Your task to perform on an android device: Clear the cart on ebay.com. Image 0: 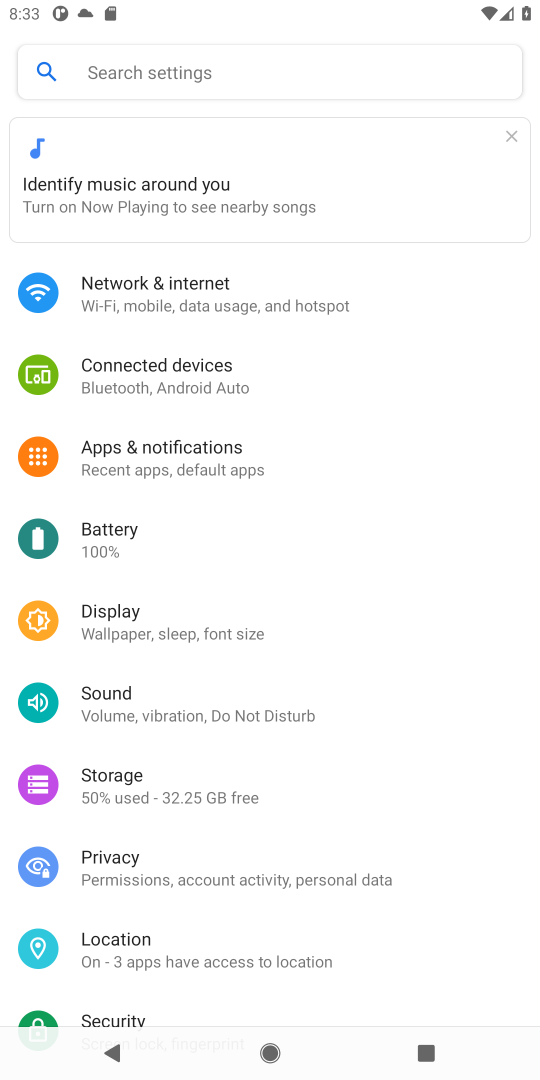
Step 0: press home button
Your task to perform on an android device: Clear the cart on ebay.com. Image 1: 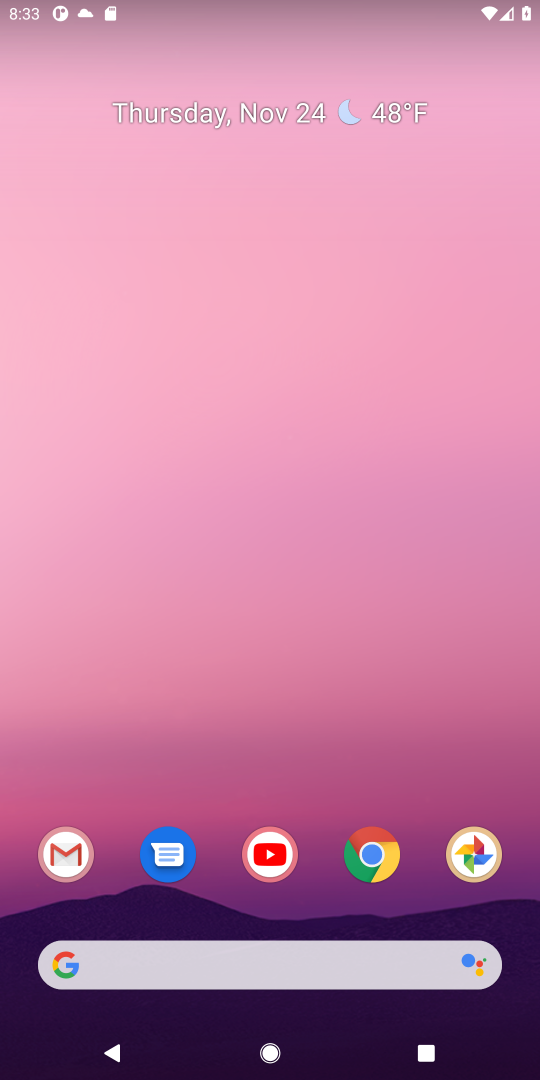
Step 1: click (362, 867)
Your task to perform on an android device: Clear the cart on ebay.com. Image 2: 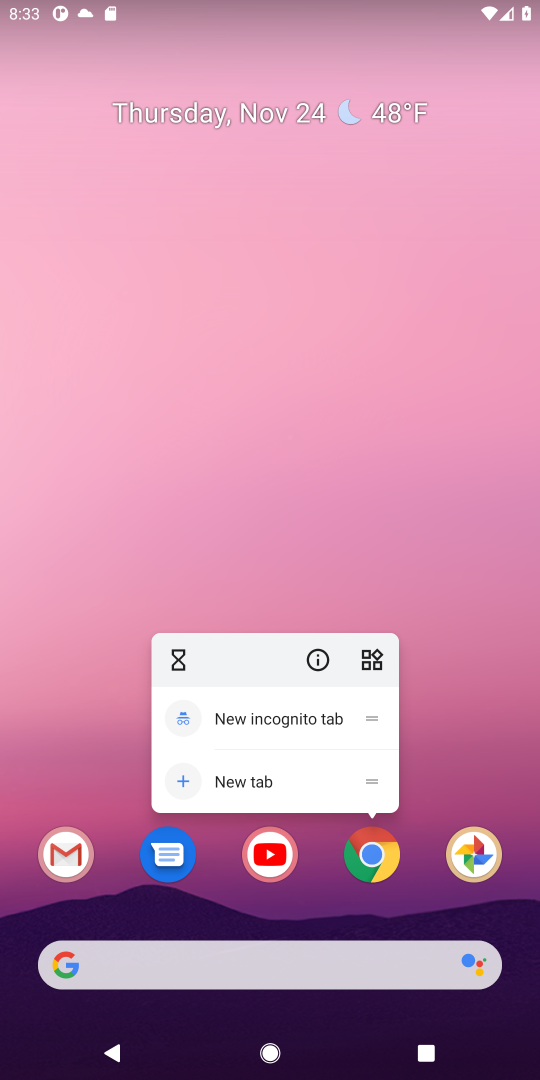
Step 2: click (365, 864)
Your task to perform on an android device: Clear the cart on ebay.com. Image 3: 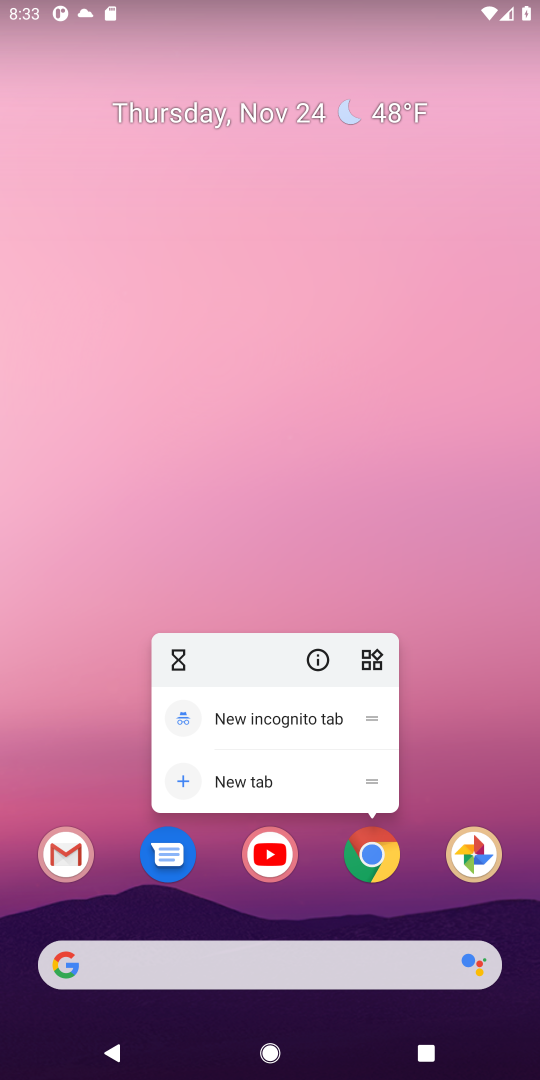
Step 3: click (391, 863)
Your task to perform on an android device: Clear the cart on ebay.com. Image 4: 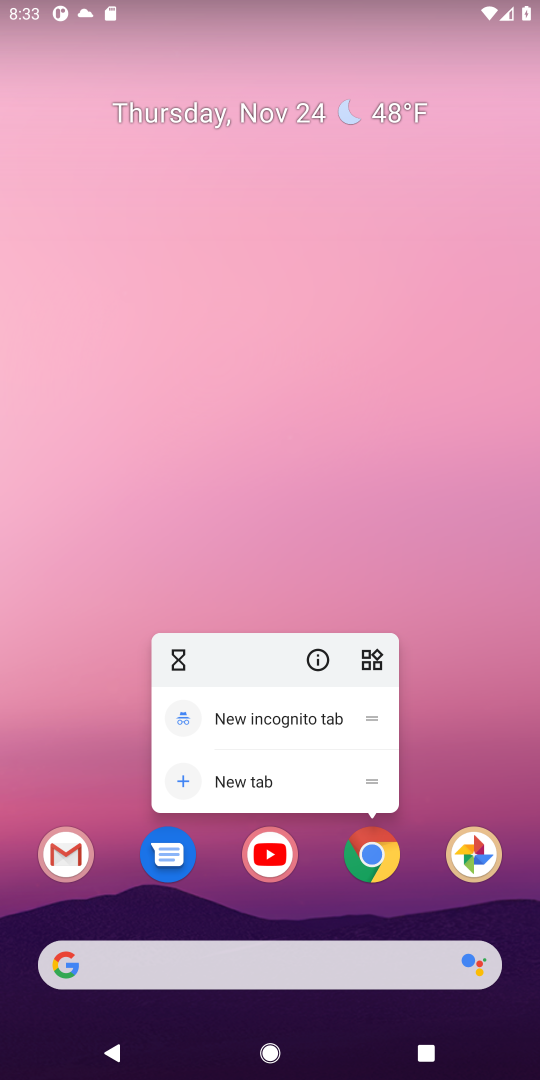
Step 4: click (372, 861)
Your task to perform on an android device: Clear the cart on ebay.com. Image 5: 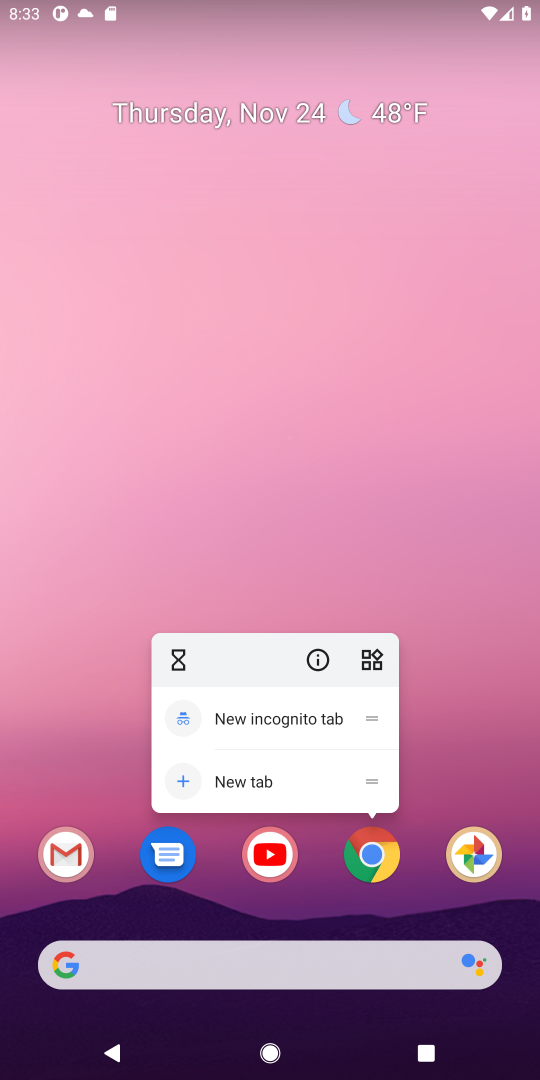
Step 5: click (372, 861)
Your task to perform on an android device: Clear the cart on ebay.com. Image 6: 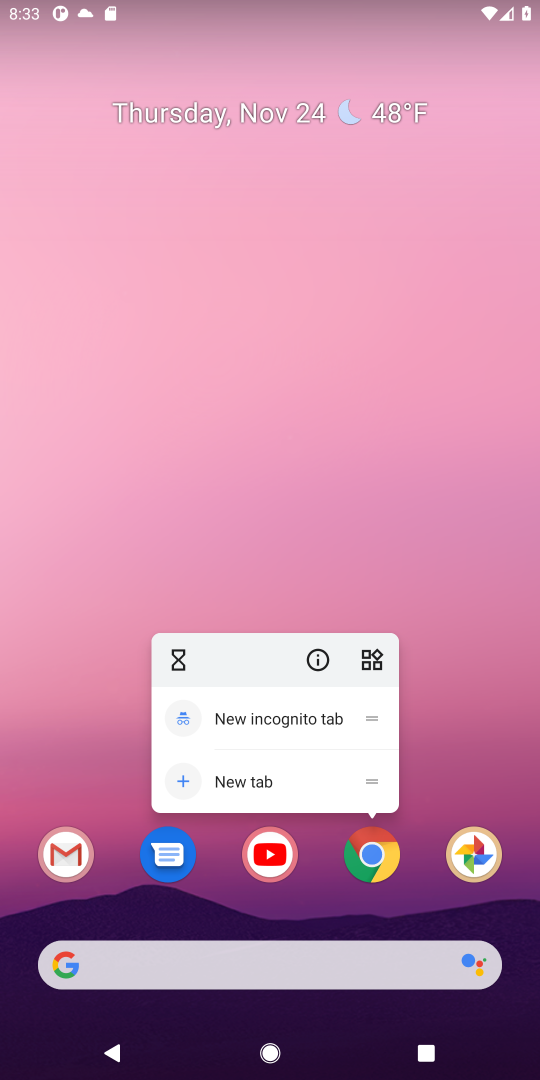
Step 6: click (376, 862)
Your task to perform on an android device: Clear the cart on ebay.com. Image 7: 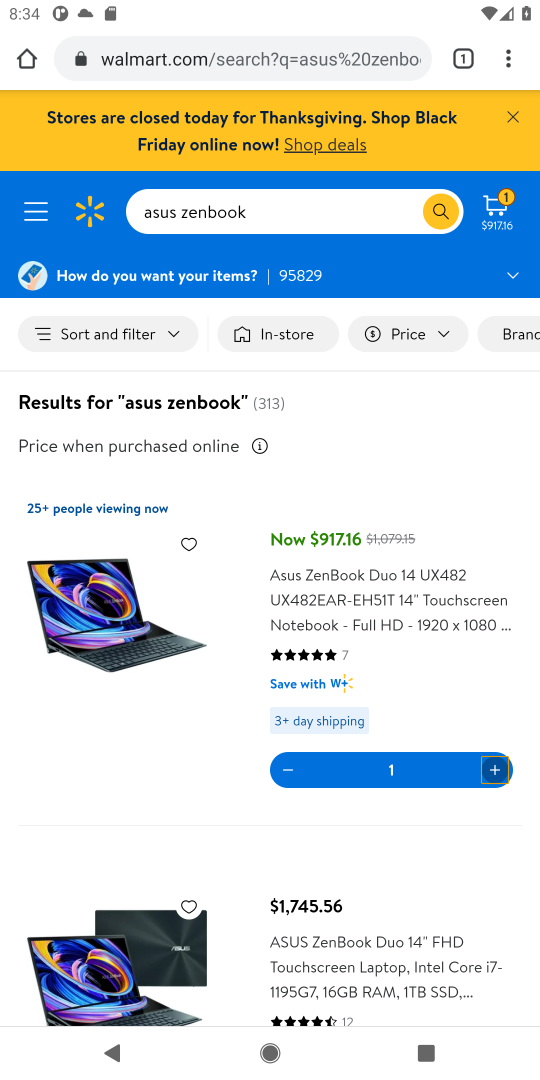
Step 7: click (496, 227)
Your task to perform on an android device: Clear the cart on ebay.com. Image 8: 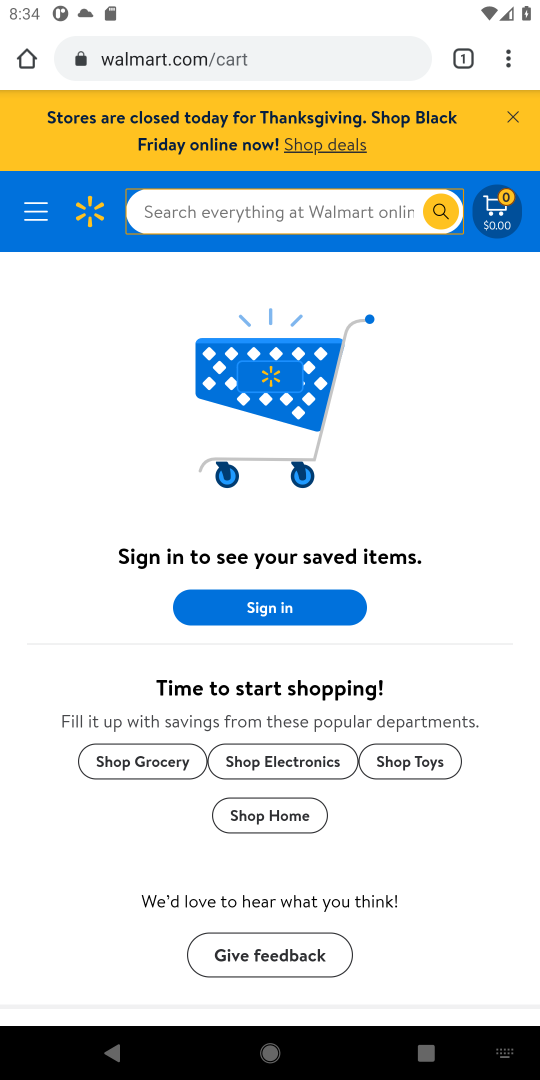
Step 8: task complete